Your task to perform on an android device: turn on showing notifications on the lock screen Image 0: 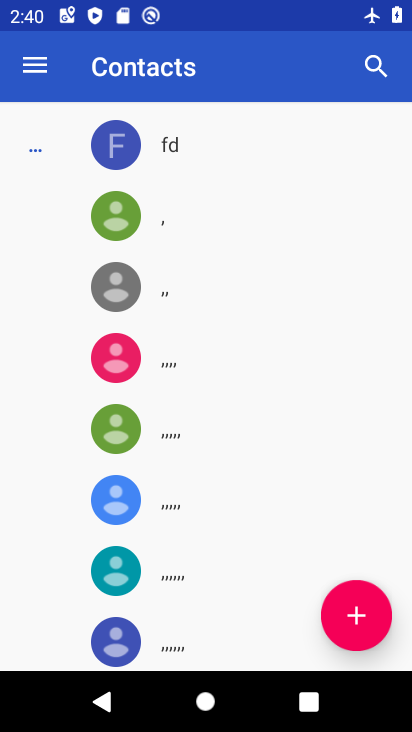
Step 0: press home button
Your task to perform on an android device: turn on showing notifications on the lock screen Image 1: 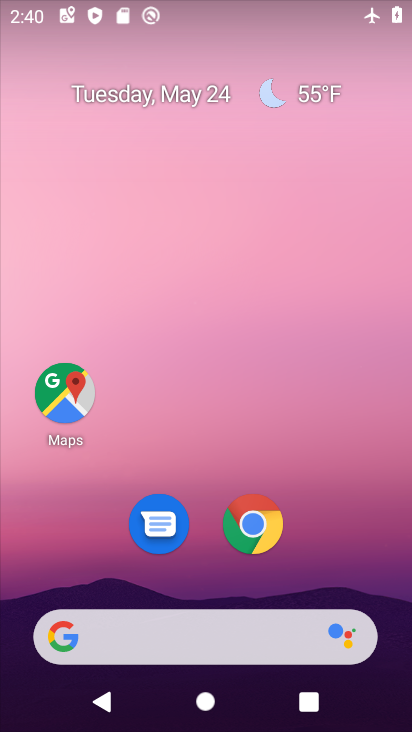
Step 1: drag from (343, 539) to (356, 63)
Your task to perform on an android device: turn on showing notifications on the lock screen Image 2: 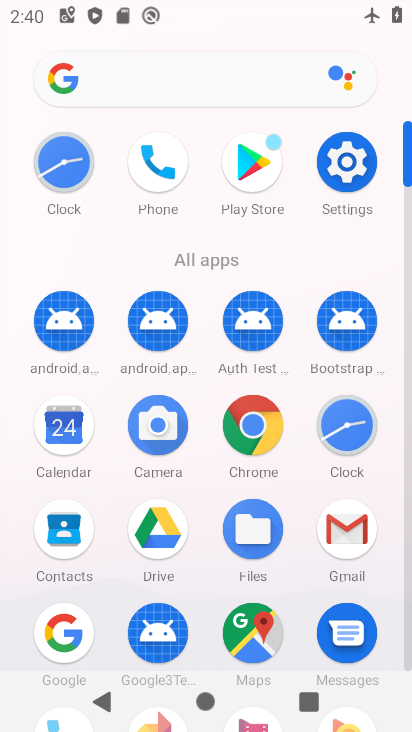
Step 2: click (344, 164)
Your task to perform on an android device: turn on showing notifications on the lock screen Image 3: 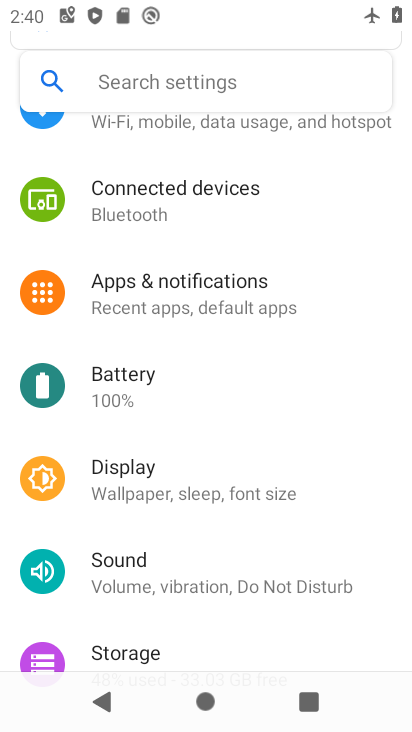
Step 3: click (253, 287)
Your task to perform on an android device: turn on showing notifications on the lock screen Image 4: 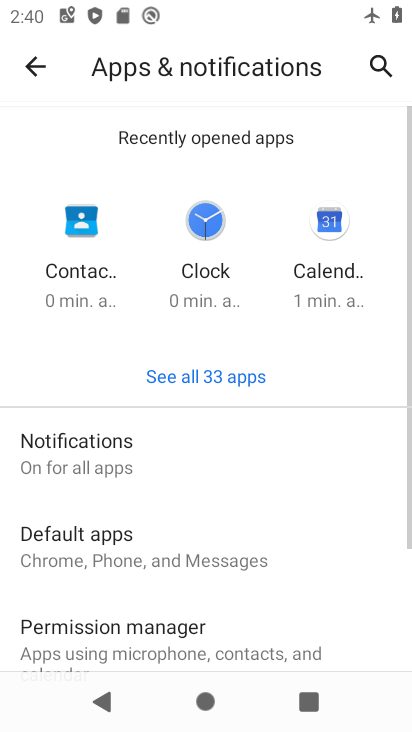
Step 4: click (142, 449)
Your task to perform on an android device: turn on showing notifications on the lock screen Image 5: 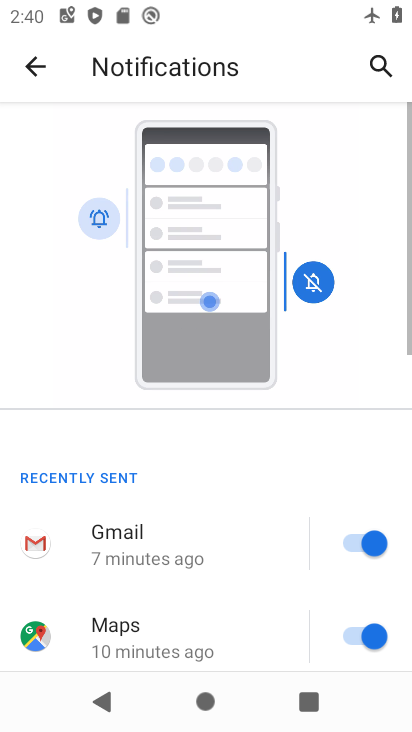
Step 5: drag from (244, 577) to (267, 216)
Your task to perform on an android device: turn on showing notifications on the lock screen Image 6: 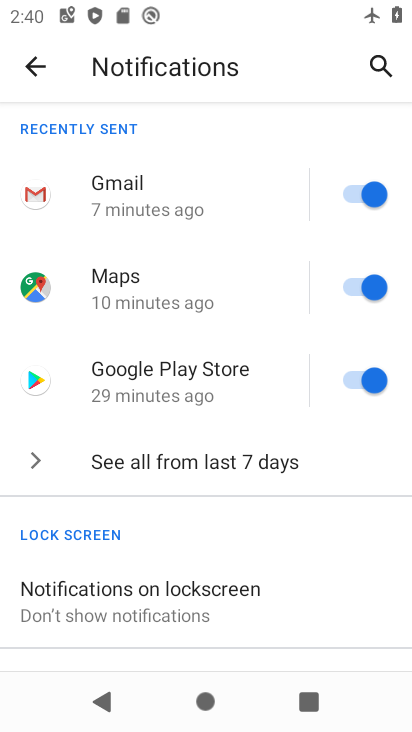
Step 6: click (235, 590)
Your task to perform on an android device: turn on showing notifications on the lock screen Image 7: 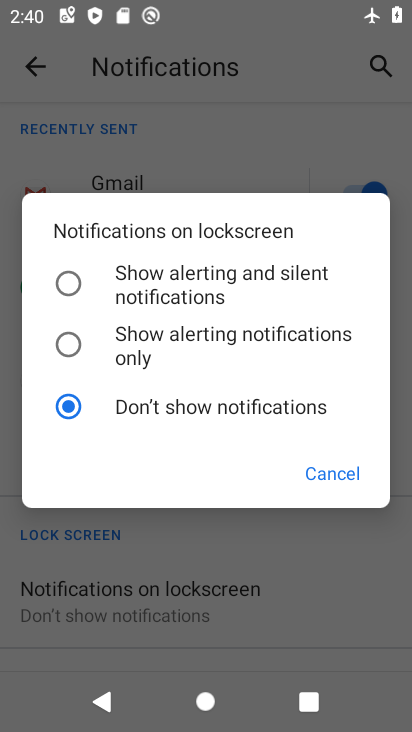
Step 7: click (71, 275)
Your task to perform on an android device: turn on showing notifications on the lock screen Image 8: 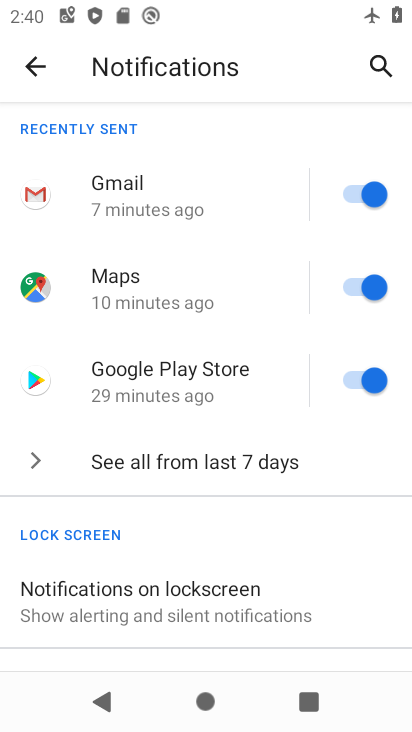
Step 8: task complete